Your task to perform on an android device: Open maps Image 0: 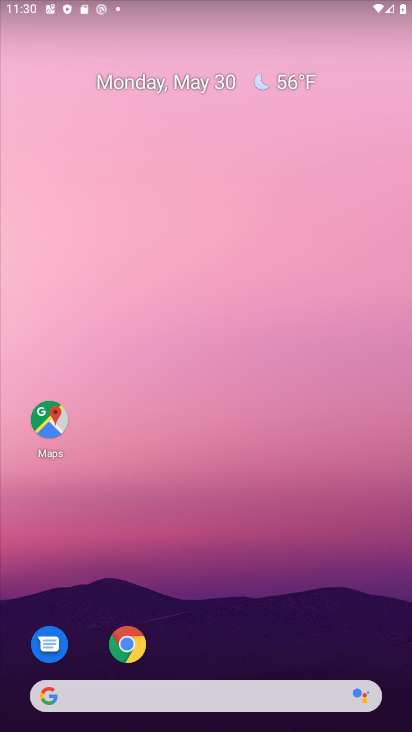
Step 0: click (52, 433)
Your task to perform on an android device: Open maps Image 1: 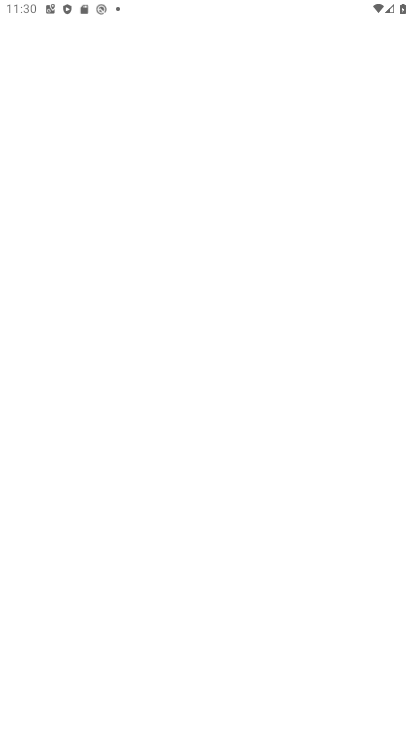
Step 1: click (191, 356)
Your task to perform on an android device: Open maps Image 2: 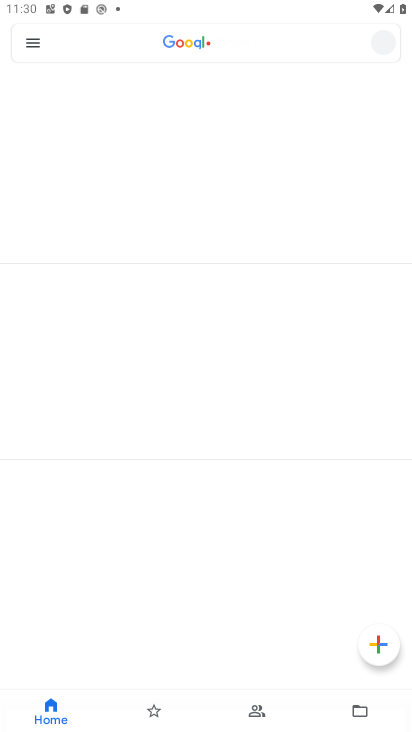
Step 2: click (182, 270)
Your task to perform on an android device: Open maps Image 3: 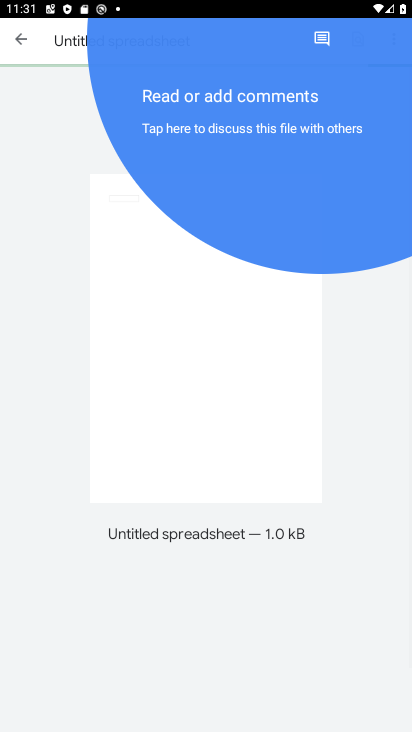
Step 3: press home button
Your task to perform on an android device: Open maps Image 4: 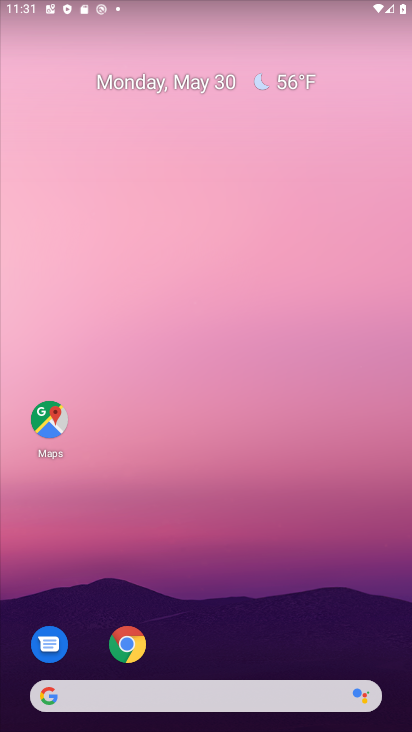
Step 4: click (60, 424)
Your task to perform on an android device: Open maps Image 5: 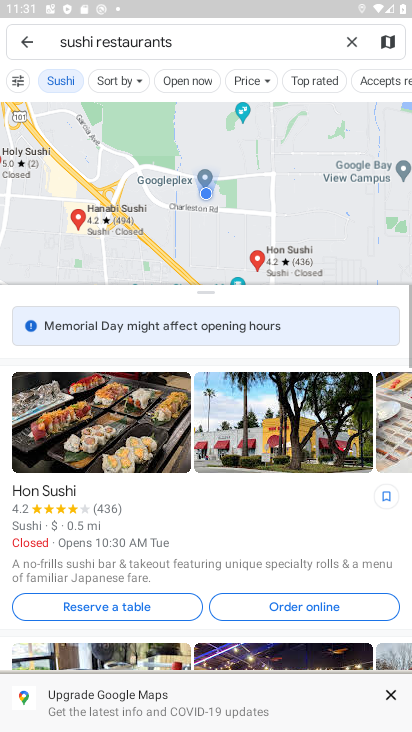
Step 5: click (24, 33)
Your task to perform on an android device: Open maps Image 6: 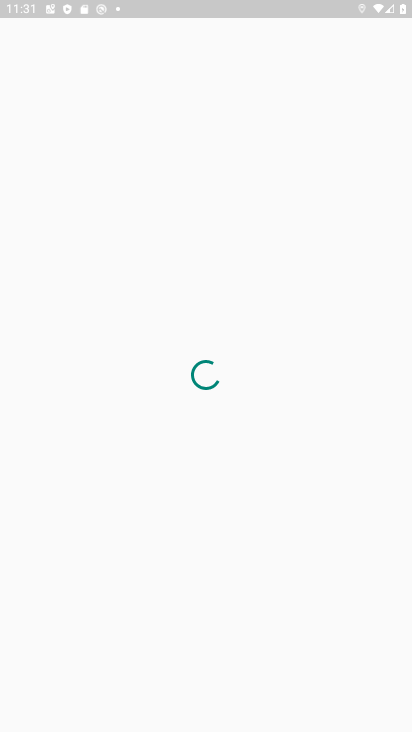
Step 6: task complete